Your task to perform on an android device: turn off airplane mode Image 0: 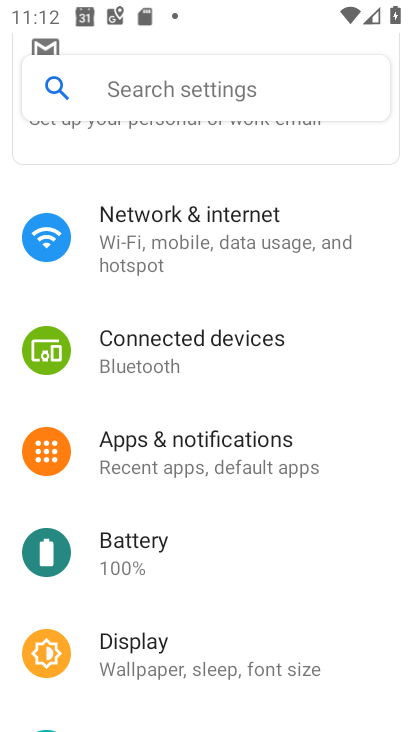
Step 0: click (251, 254)
Your task to perform on an android device: turn off airplane mode Image 1: 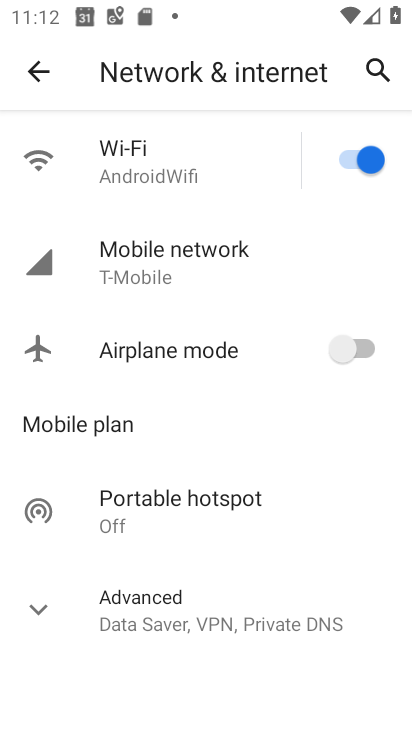
Step 1: task complete